Your task to perform on an android device: turn on improve location accuracy Image 0: 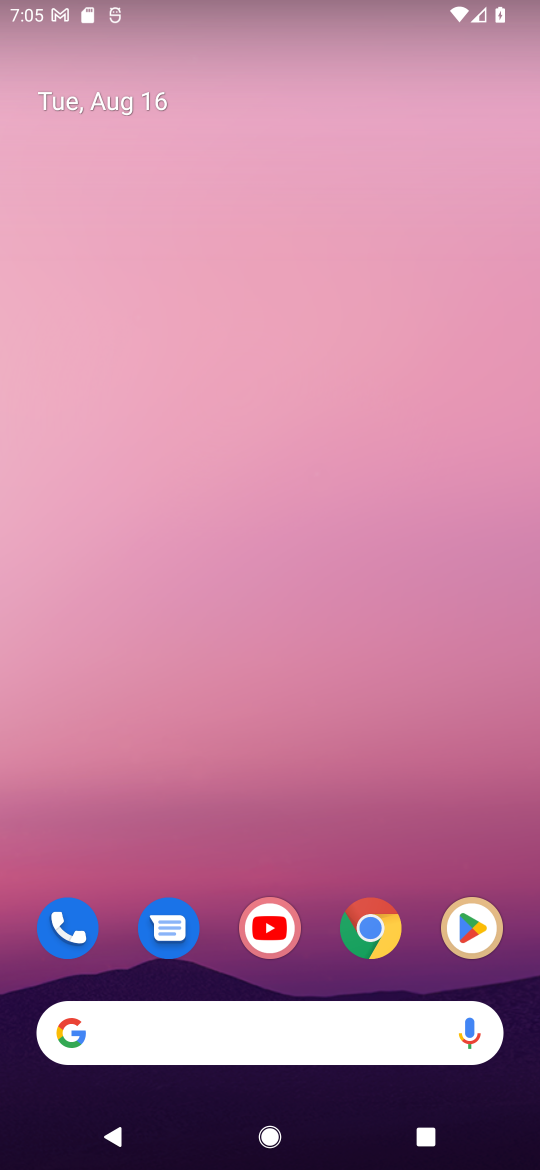
Step 0: drag from (254, 1011) to (258, 235)
Your task to perform on an android device: turn on improve location accuracy Image 1: 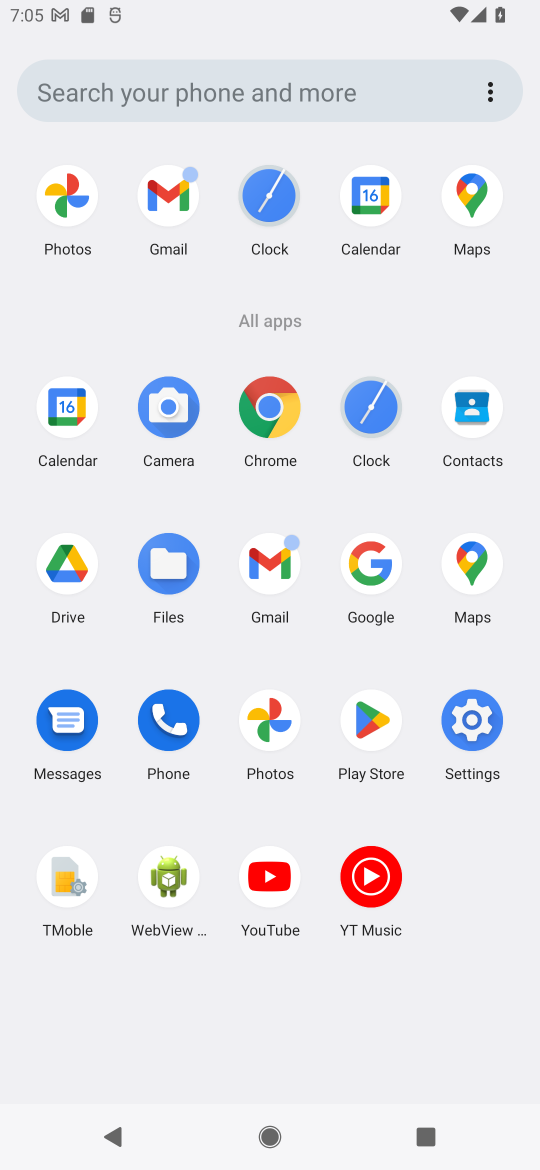
Step 1: click (453, 718)
Your task to perform on an android device: turn on improve location accuracy Image 2: 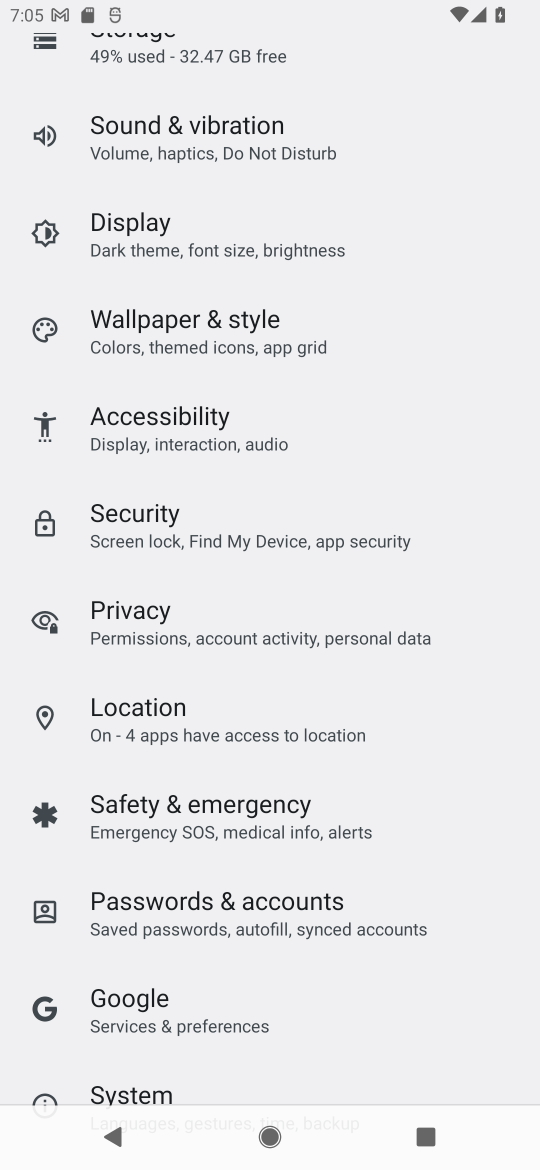
Step 2: click (188, 716)
Your task to perform on an android device: turn on improve location accuracy Image 3: 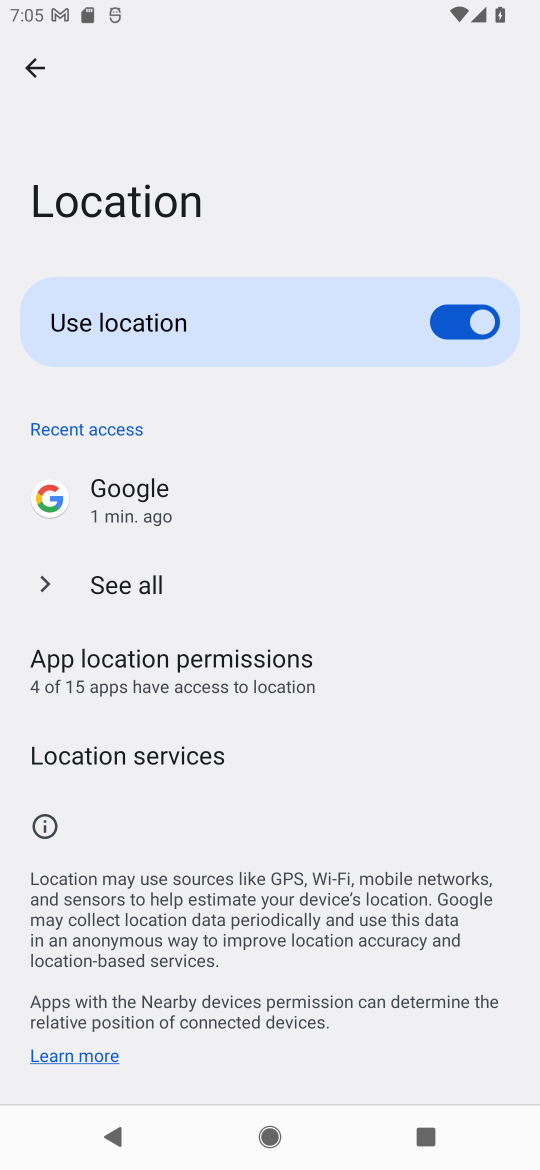
Step 3: click (131, 759)
Your task to perform on an android device: turn on improve location accuracy Image 4: 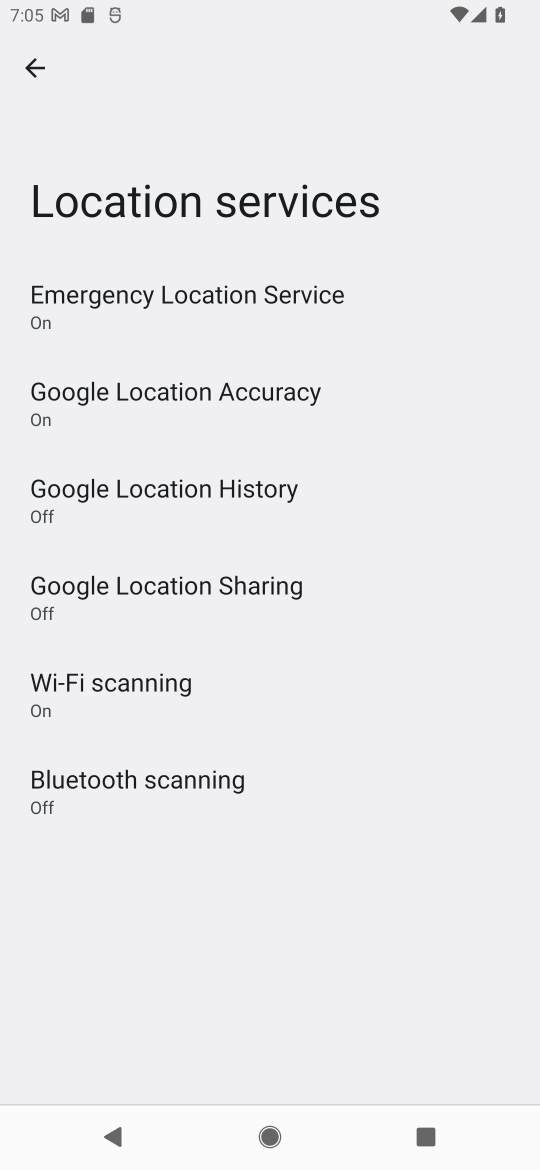
Step 4: click (238, 385)
Your task to perform on an android device: turn on improve location accuracy Image 5: 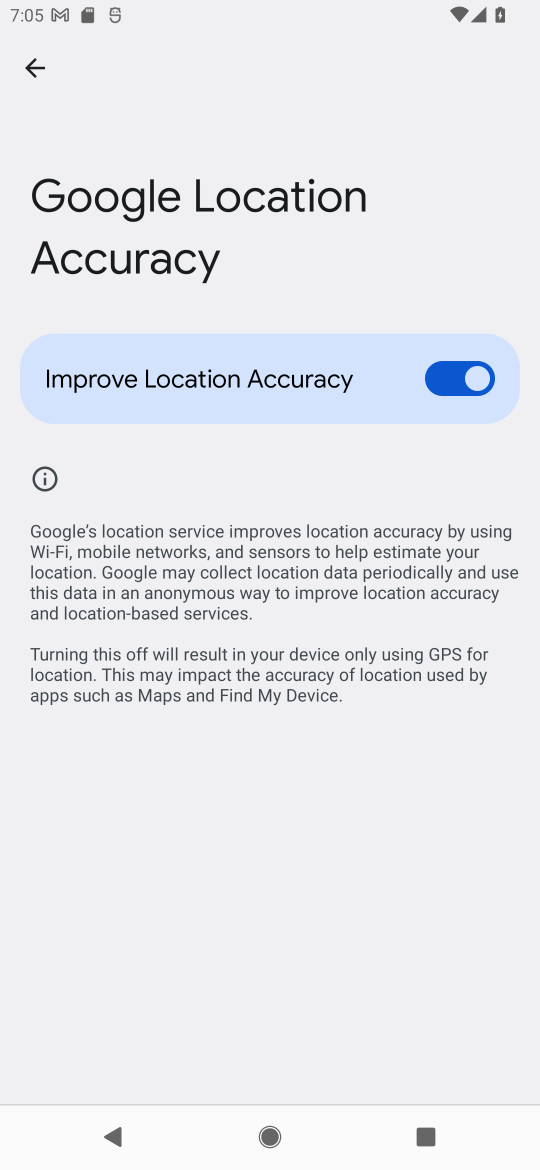
Step 5: task complete